Your task to perform on an android device: Go to Google Image 0: 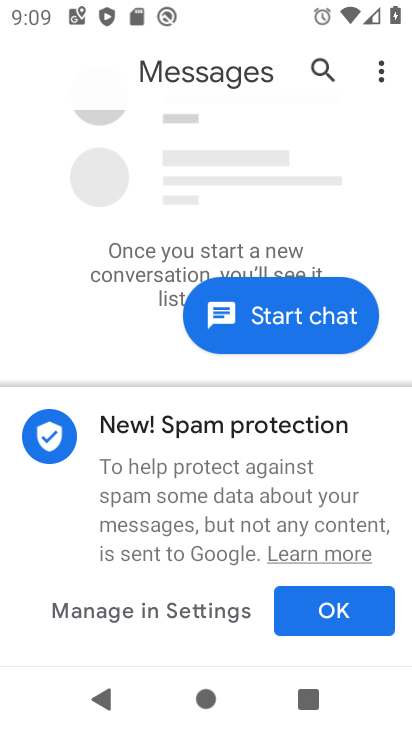
Step 0: press home button
Your task to perform on an android device: Go to Google Image 1: 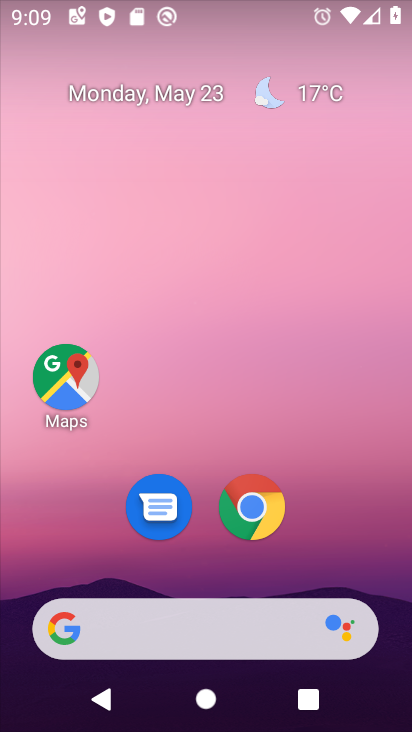
Step 1: drag from (355, 589) to (319, 17)
Your task to perform on an android device: Go to Google Image 2: 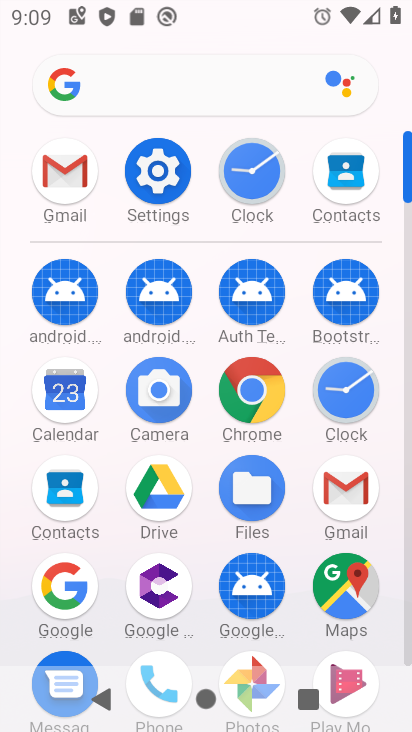
Step 2: click (71, 578)
Your task to perform on an android device: Go to Google Image 3: 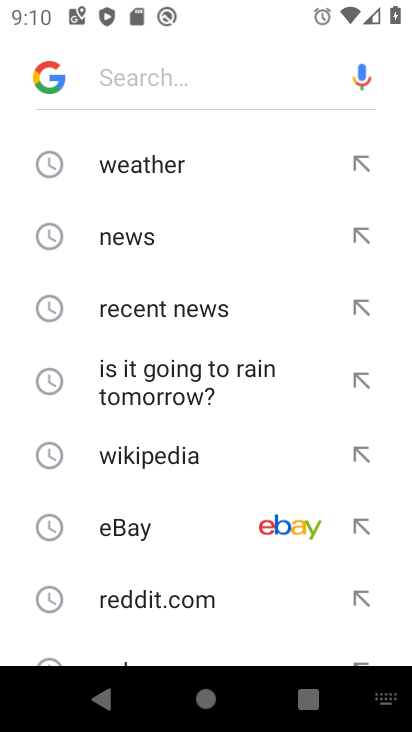
Step 3: task complete